Your task to perform on an android device: delete browsing data in the chrome app Image 0: 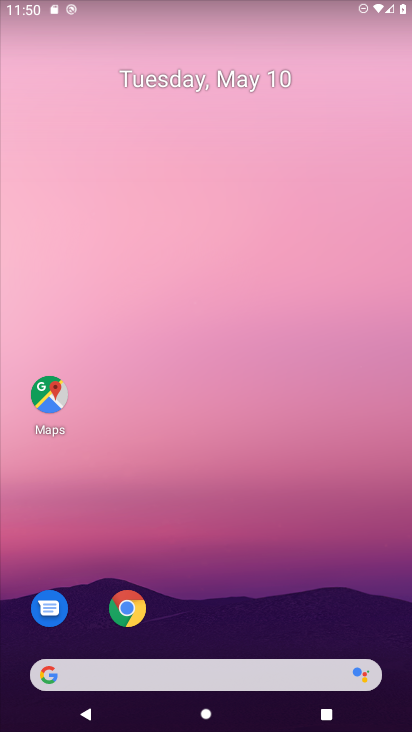
Step 0: drag from (308, 544) to (230, 22)
Your task to perform on an android device: delete browsing data in the chrome app Image 1: 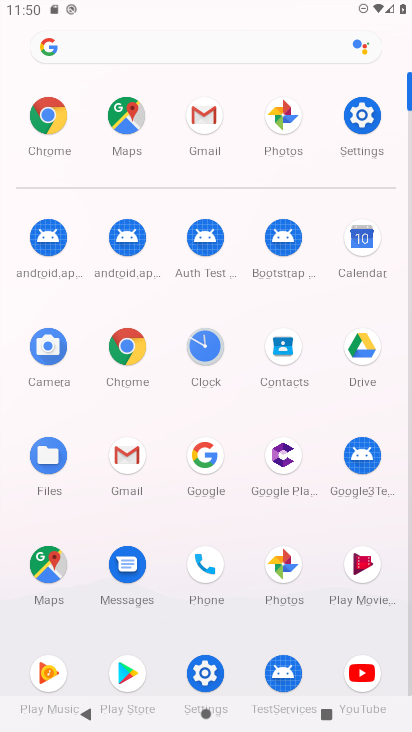
Step 1: click (45, 109)
Your task to perform on an android device: delete browsing data in the chrome app Image 2: 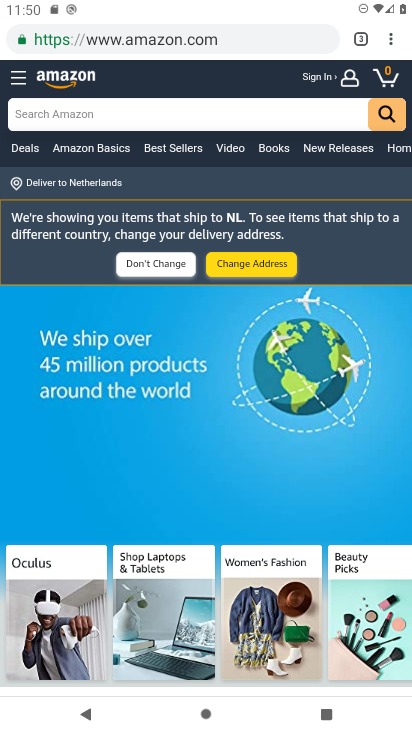
Step 2: drag from (388, 39) to (296, 270)
Your task to perform on an android device: delete browsing data in the chrome app Image 3: 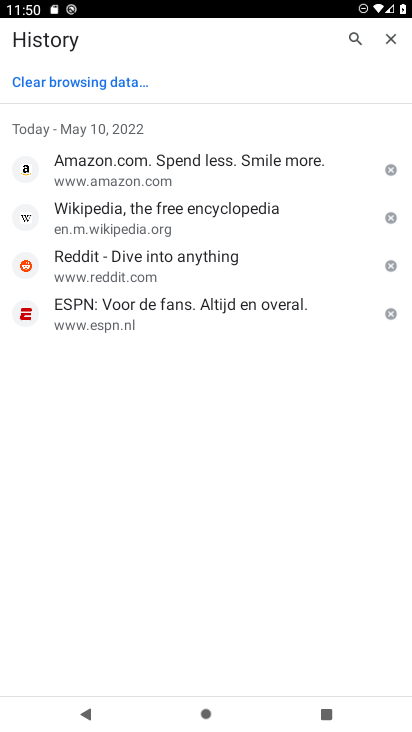
Step 3: click (118, 77)
Your task to perform on an android device: delete browsing data in the chrome app Image 4: 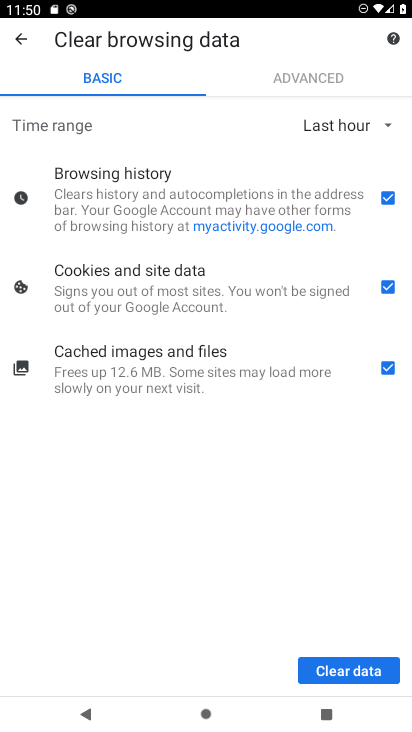
Step 4: click (368, 671)
Your task to perform on an android device: delete browsing data in the chrome app Image 5: 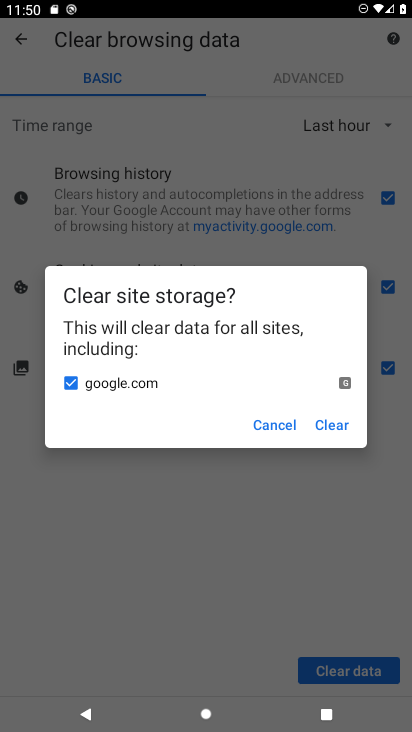
Step 5: click (330, 416)
Your task to perform on an android device: delete browsing data in the chrome app Image 6: 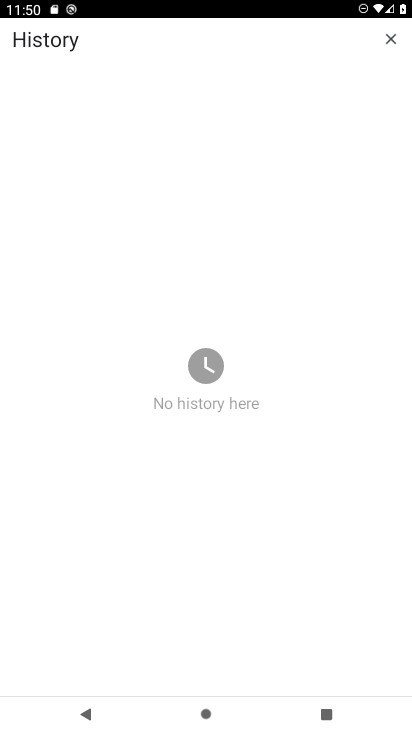
Step 6: task complete